Your task to perform on an android device: check storage Image 0: 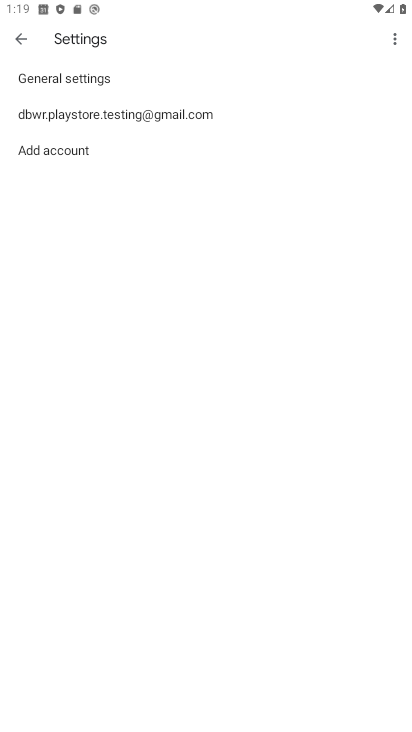
Step 0: press home button
Your task to perform on an android device: check storage Image 1: 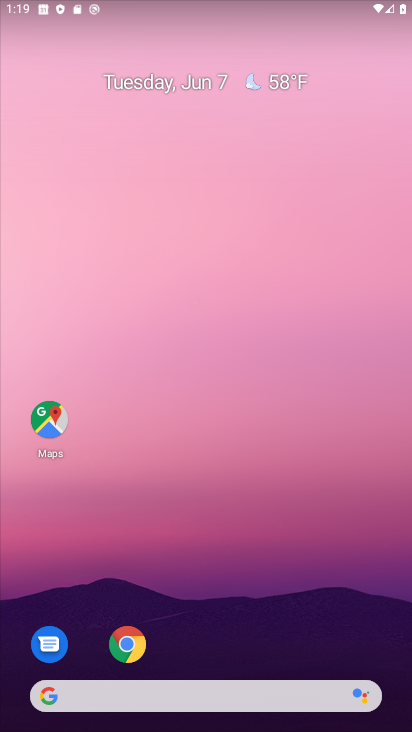
Step 1: drag from (152, 725) to (218, 79)
Your task to perform on an android device: check storage Image 2: 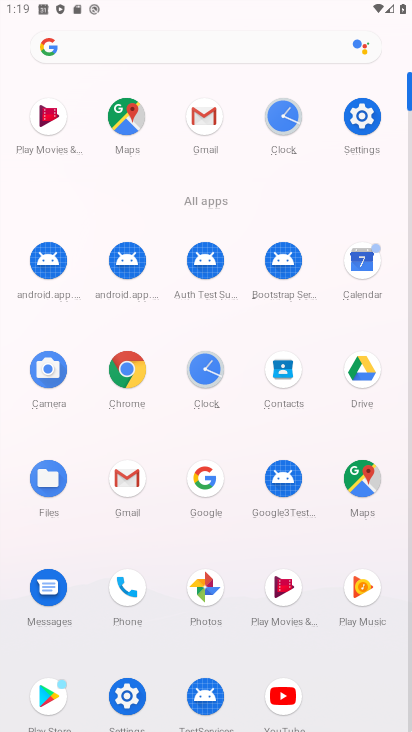
Step 2: click (361, 132)
Your task to perform on an android device: check storage Image 3: 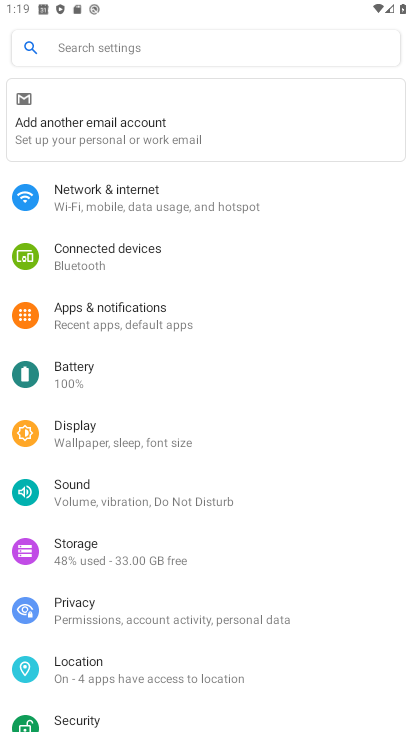
Step 3: click (109, 555)
Your task to perform on an android device: check storage Image 4: 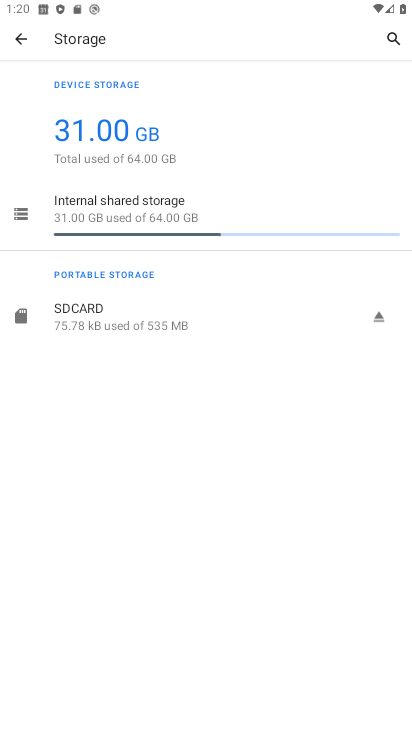
Step 4: task complete